Your task to perform on an android device: turn off airplane mode Image 0: 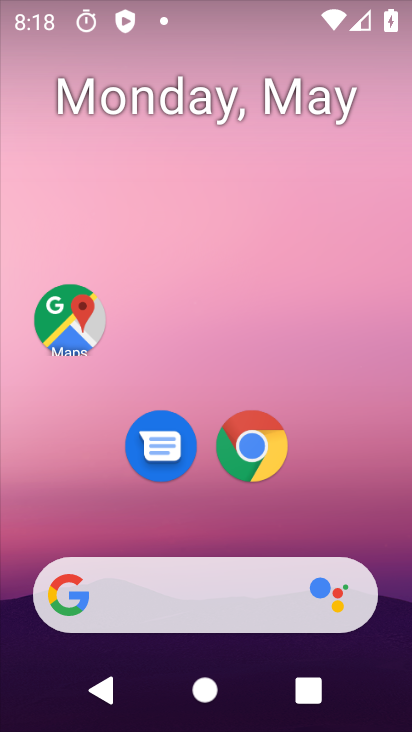
Step 0: drag from (363, 530) to (323, 7)
Your task to perform on an android device: turn off airplane mode Image 1: 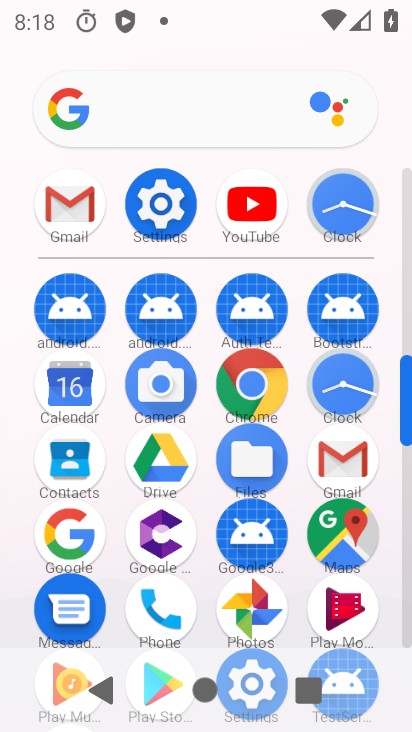
Step 1: click (177, 204)
Your task to perform on an android device: turn off airplane mode Image 2: 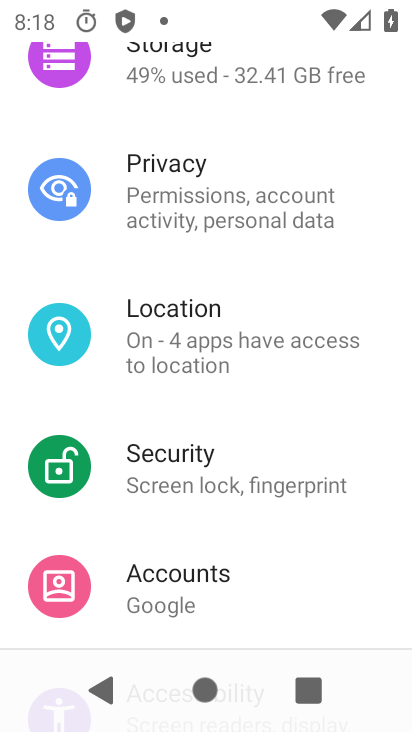
Step 2: drag from (305, 157) to (210, 608)
Your task to perform on an android device: turn off airplane mode Image 3: 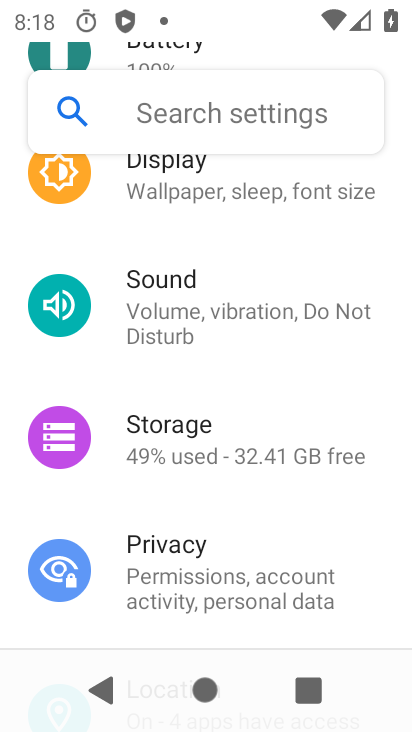
Step 3: drag from (241, 219) to (185, 671)
Your task to perform on an android device: turn off airplane mode Image 4: 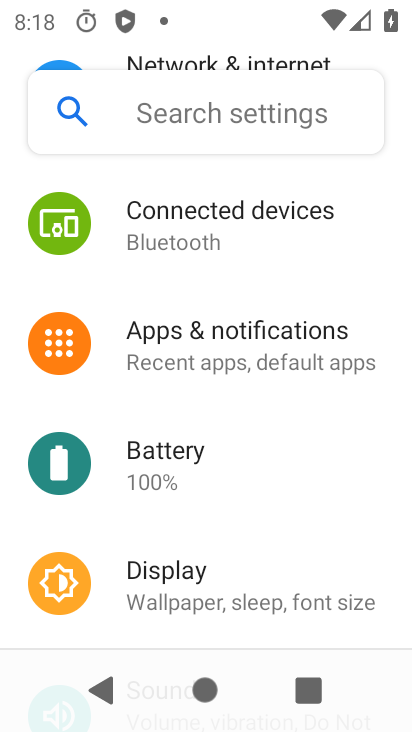
Step 4: drag from (215, 222) to (210, 516)
Your task to perform on an android device: turn off airplane mode Image 5: 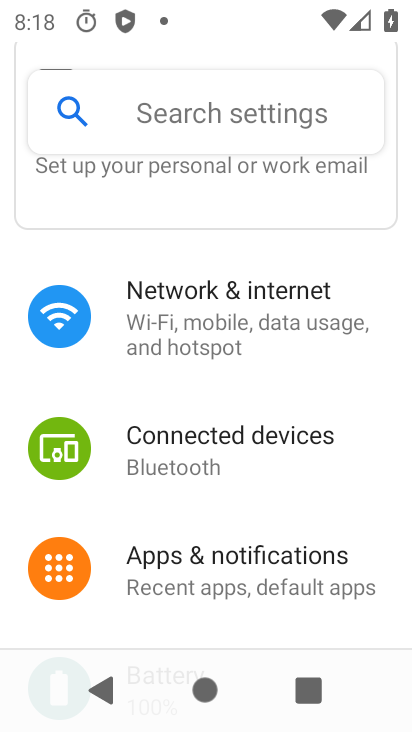
Step 5: click (198, 293)
Your task to perform on an android device: turn off airplane mode Image 6: 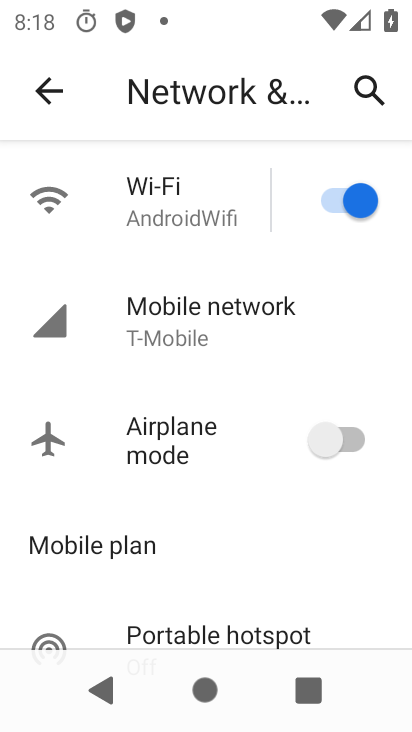
Step 6: task complete